Your task to perform on an android device: Open Google Chrome Image 0: 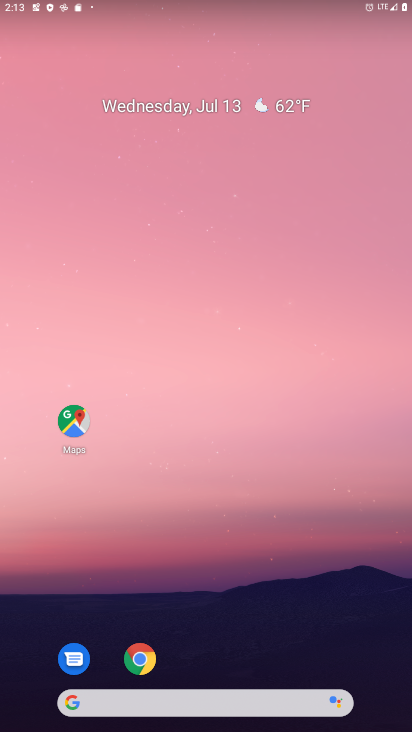
Step 0: click (136, 659)
Your task to perform on an android device: Open Google Chrome Image 1: 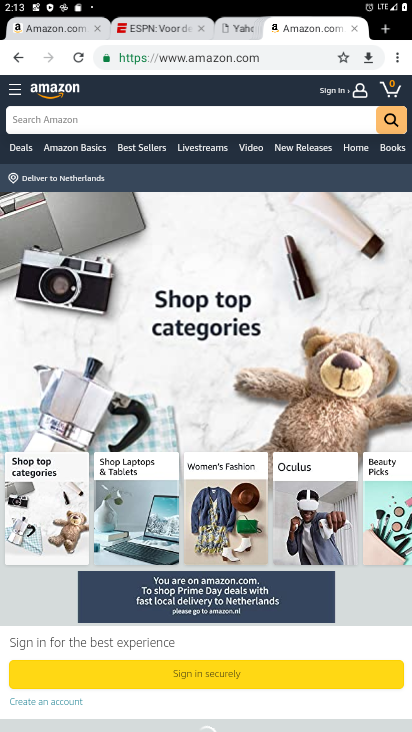
Step 1: task complete